Your task to perform on an android device: Open calendar and show me the first week of next month Image 0: 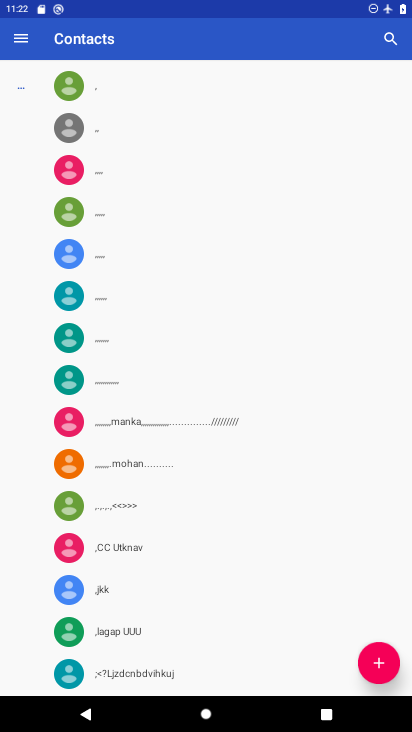
Step 0: press home button
Your task to perform on an android device: Open calendar and show me the first week of next month Image 1: 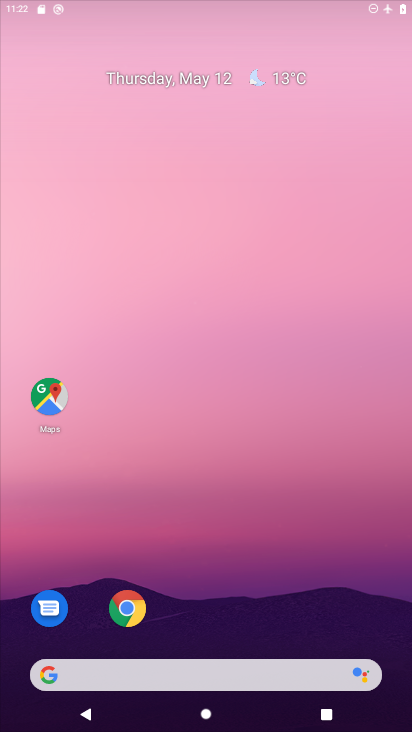
Step 1: drag from (253, 592) to (279, 77)
Your task to perform on an android device: Open calendar and show me the first week of next month Image 2: 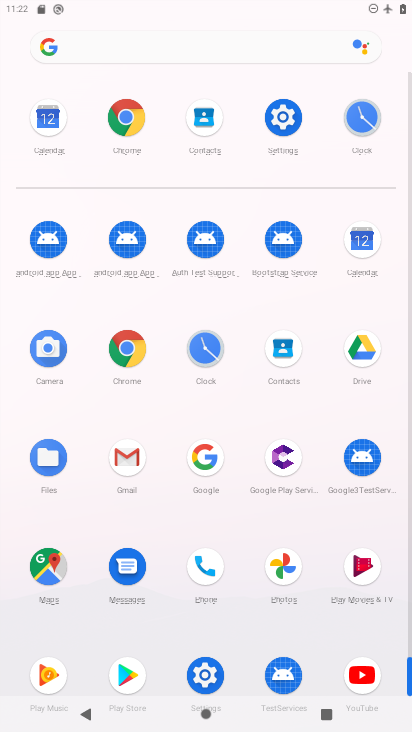
Step 2: click (357, 238)
Your task to perform on an android device: Open calendar and show me the first week of next month Image 3: 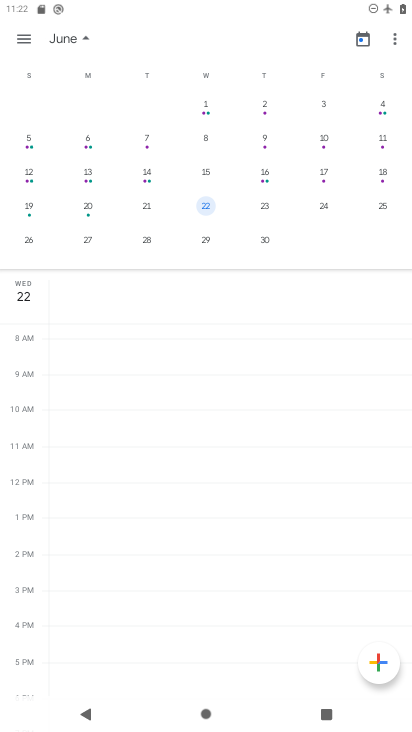
Step 3: click (332, 104)
Your task to perform on an android device: Open calendar and show me the first week of next month Image 4: 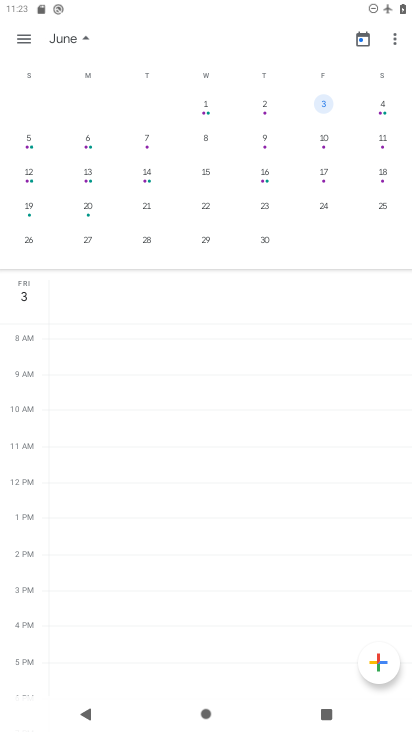
Step 4: task complete